Your task to perform on an android device: Go to sound settings Image 0: 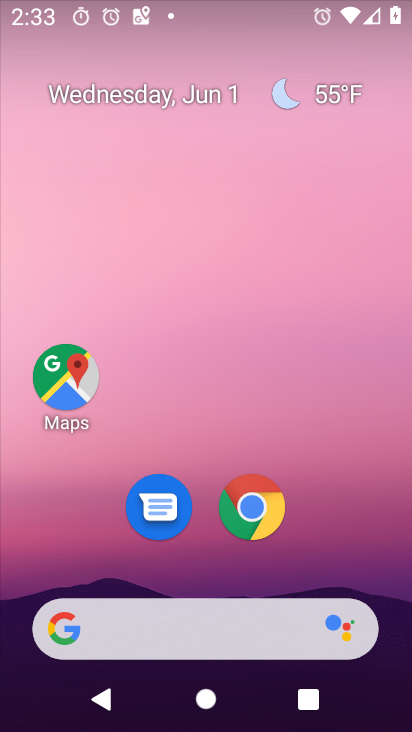
Step 0: drag from (375, 589) to (358, 1)
Your task to perform on an android device: Go to sound settings Image 1: 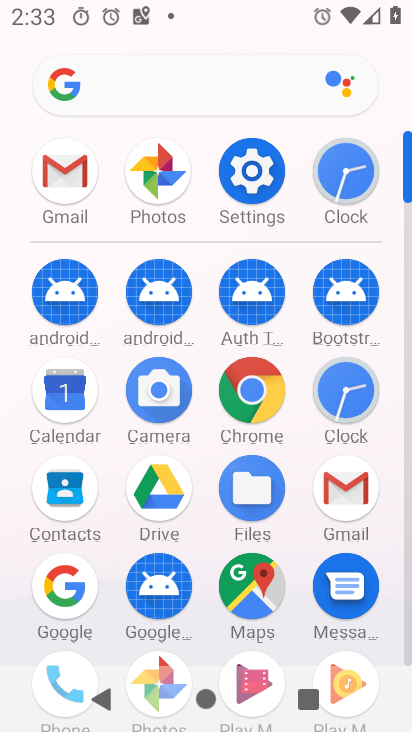
Step 1: click (257, 182)
Your task to perform on an android device: Go to sound settings Image 2: 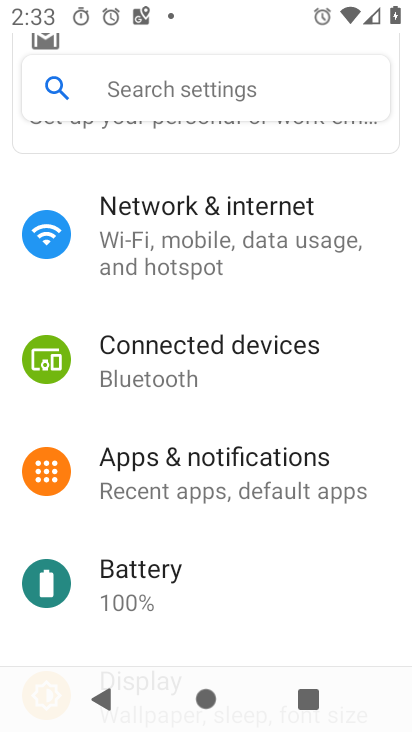
Step 2: drag from (295, 551) to (286, 227)
Your task to perform on an android device: Go to sound settings Image 3: 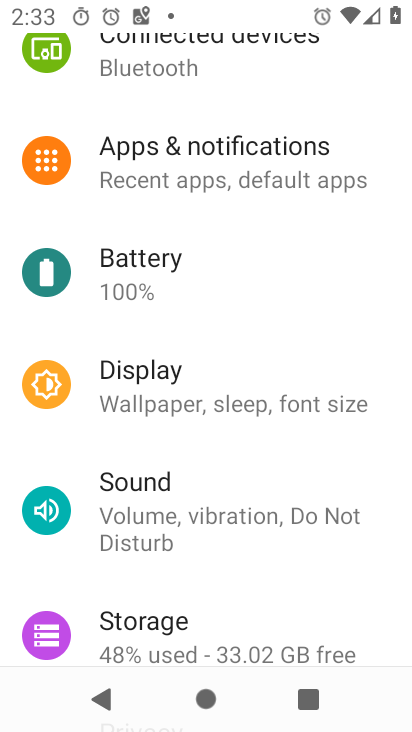
Step 3: click (155, 522)
Your task to perform on an android device: Go to sound settings Image 4: 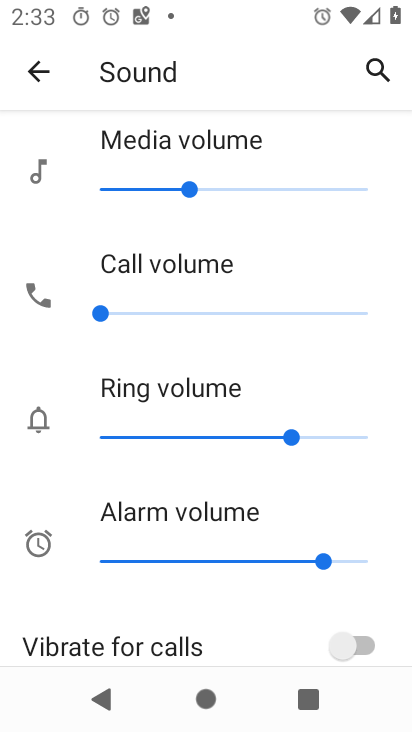
Step 4: task complete